Your task to perform on an android device: Check the news Image 0: 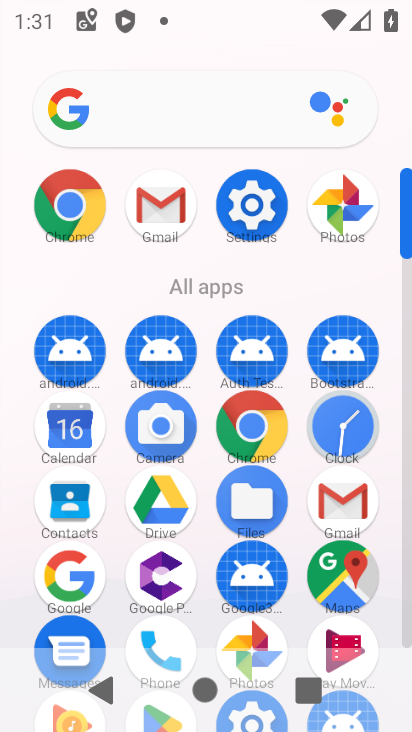
Step 0: press home button
Your task to perform on an android device: Check the news Image 1: 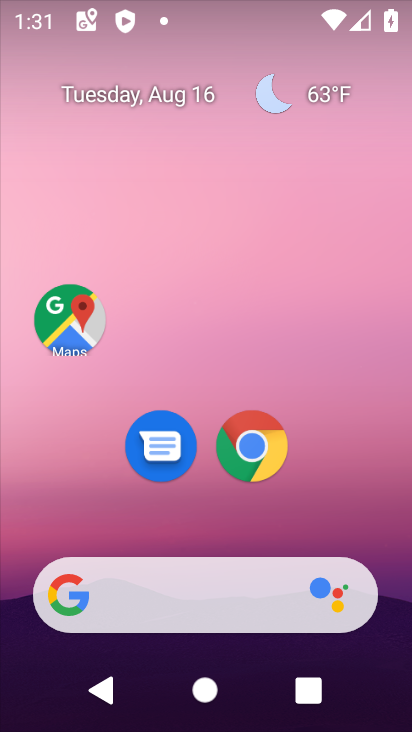
Step 1: task complete